Your task to perform on an android device: change alarm snooze length Image 0: 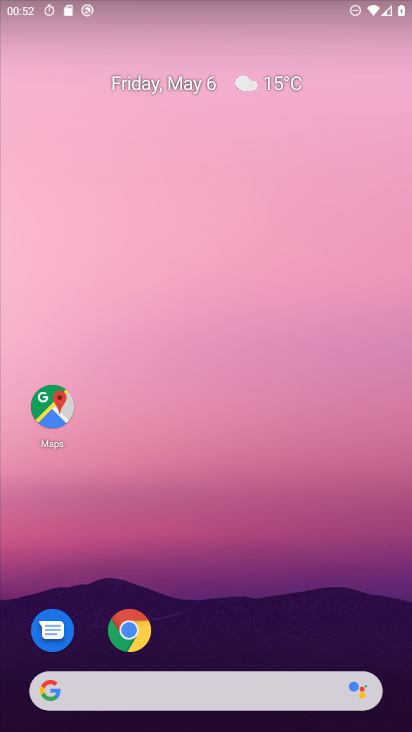
Step 0: drag from (319, 592) to (302, 116)
Your task to perform on an android device: change alarm snooze length Image 1: 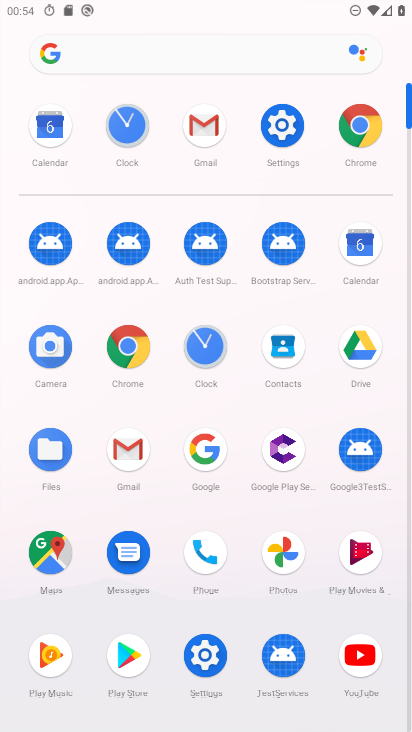
Step 1: click (196, 346)
Your task to perform on an android device: change alarm snooze length Image 2: 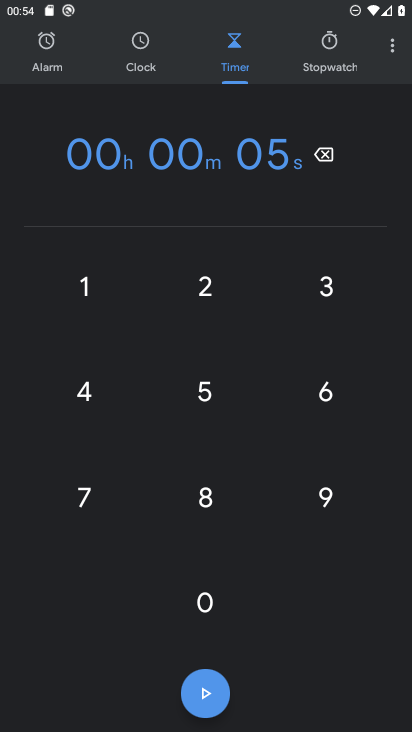
Step 2: click (396, 40)
Your task to perform on an android device: change alarm snooze length Image 3: 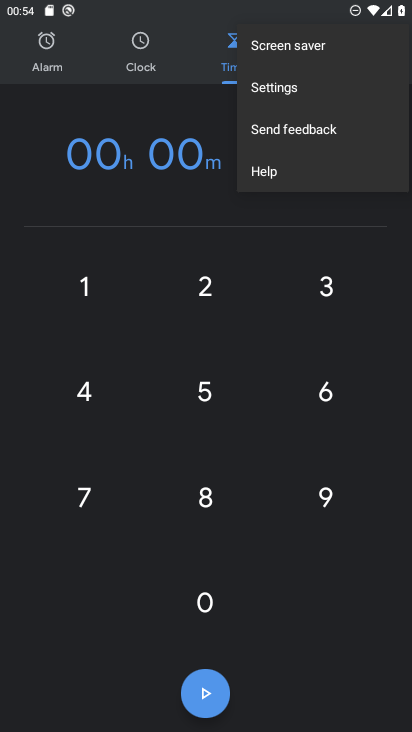
Step 3: click (299, 88)
Your task to perform on an android device: change alarm snooze length Image 4: 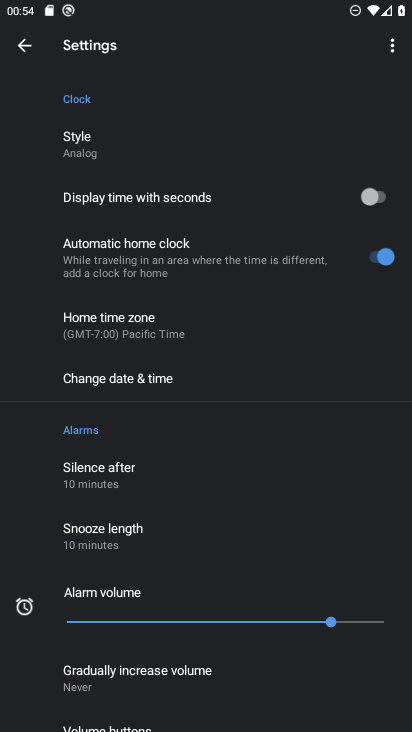
Step 4: drag from (240, 572) to (245, 134)
Your task to perform on an android device: change alarm snooze length Image 5: 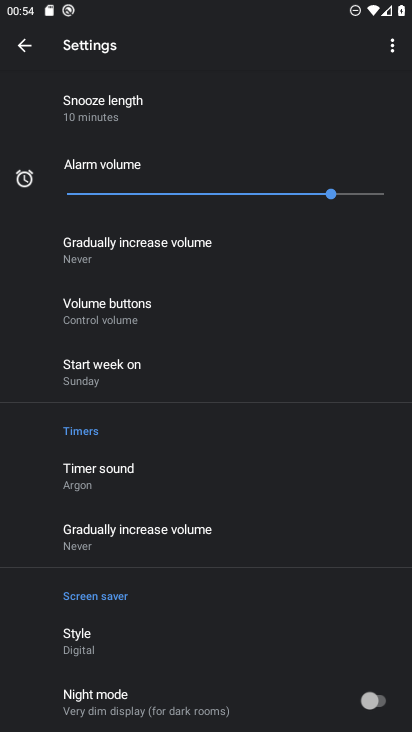
Step 5: click (97, 124)
Your task to perform on an android device: change alarm snooze length Image 6: 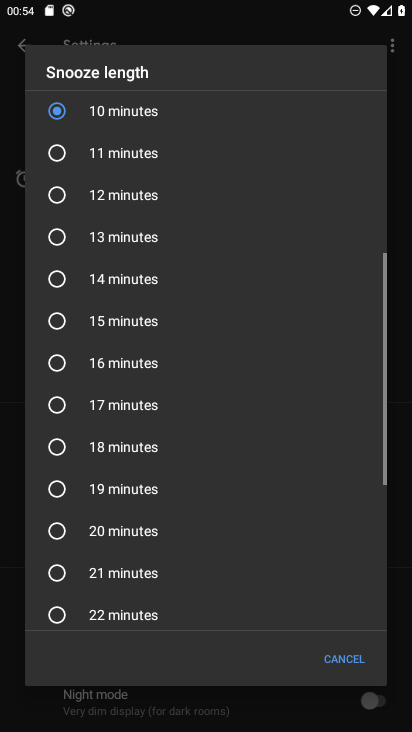
Step 6: click (117, 148)
Your task to perform on an android device: change alarm snooze length Image 7: 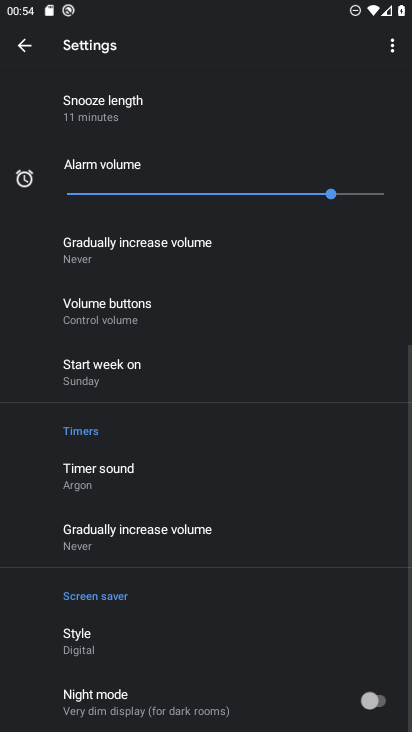
Step 7: task complete